Your task to perform on an android device: Open wifi settings Image 0: 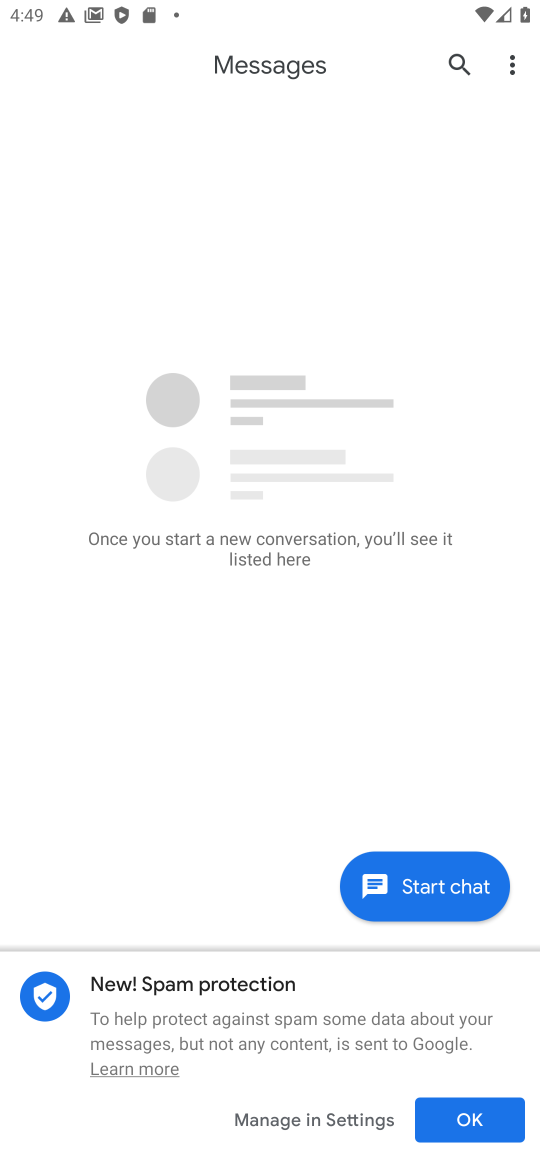
Step 0: press home button
Your task to perform on an android device: Open wifi settings Image 1: 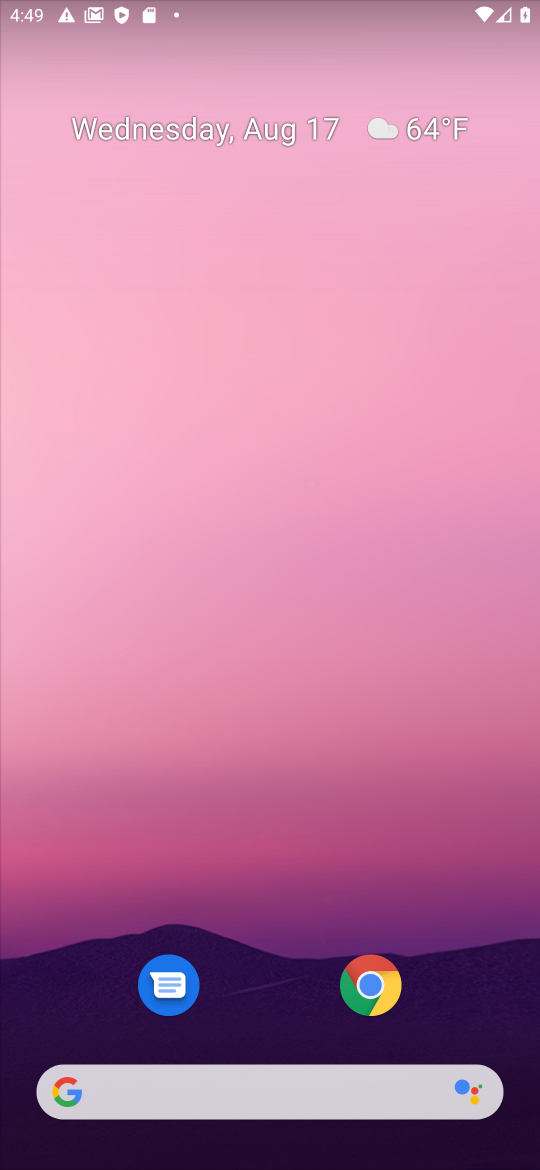
Step 1: drag from (201, 1100) to (263, 91)
Your task to perform on an android device: Open wifi settings Image 2: 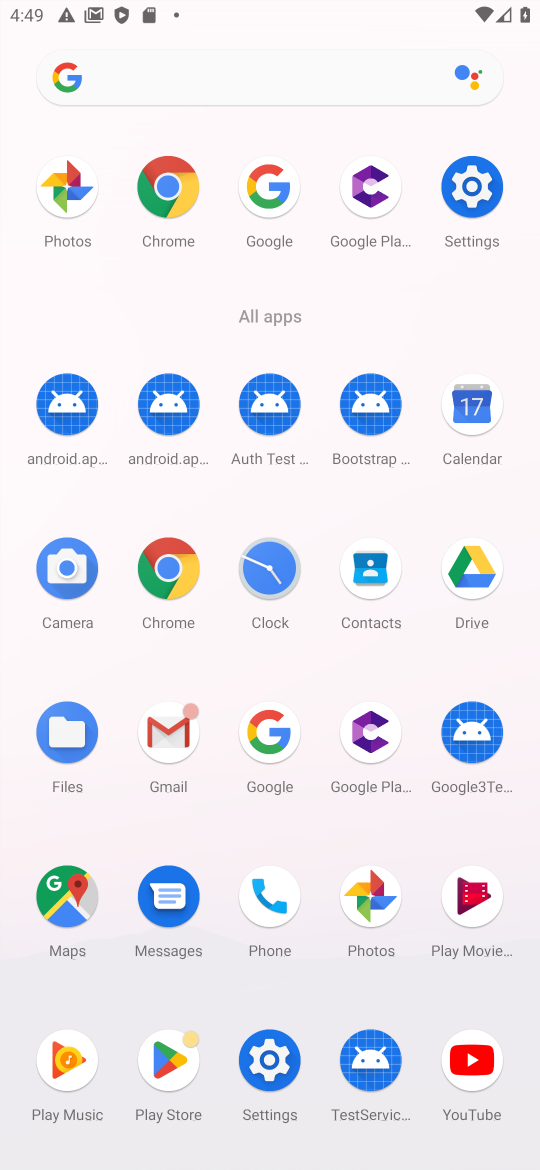
Step 2: click (473, 186)
Your task to perform on an android device: Open wifi settings Image 3: 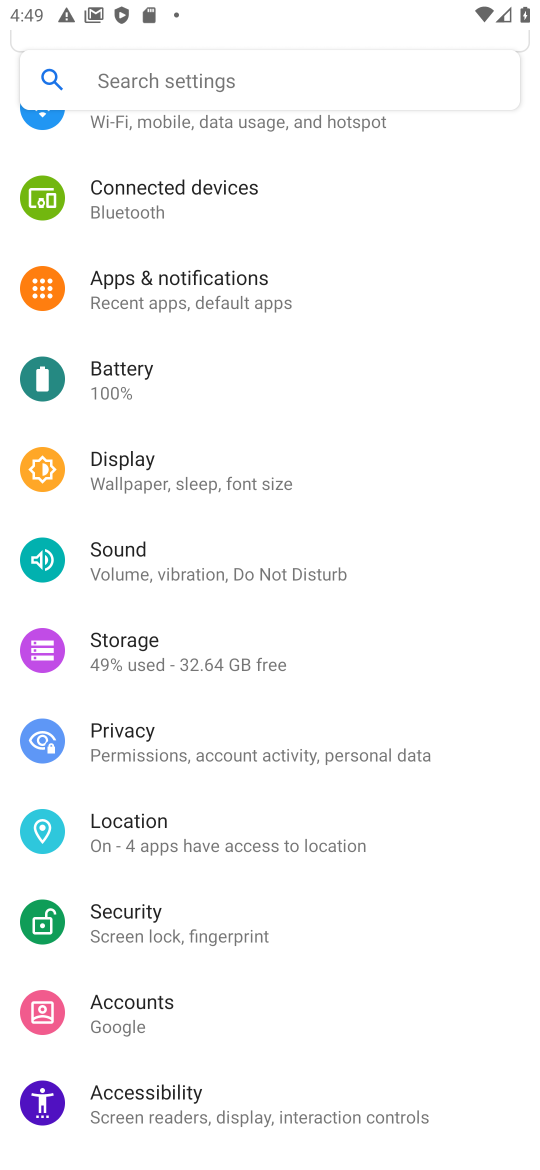
Step 3: drag from (185, 219) to (179, 506)
Your task to perform on an android device: Open wifi settings Image 4: 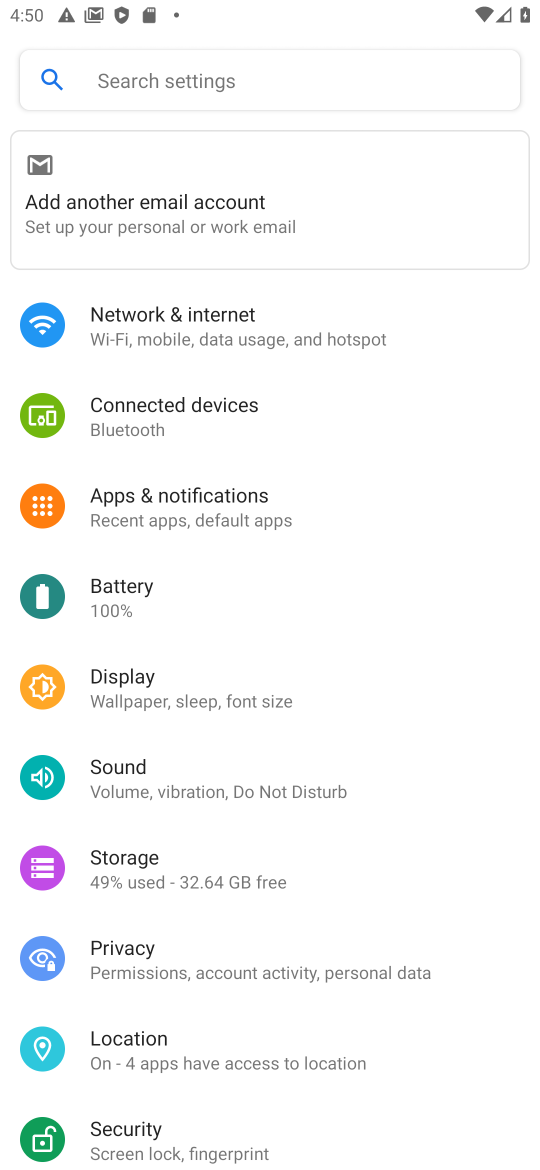
Step 4: click (206, 314)
Your task to perform on an android device: Open wifi settings Image 5: 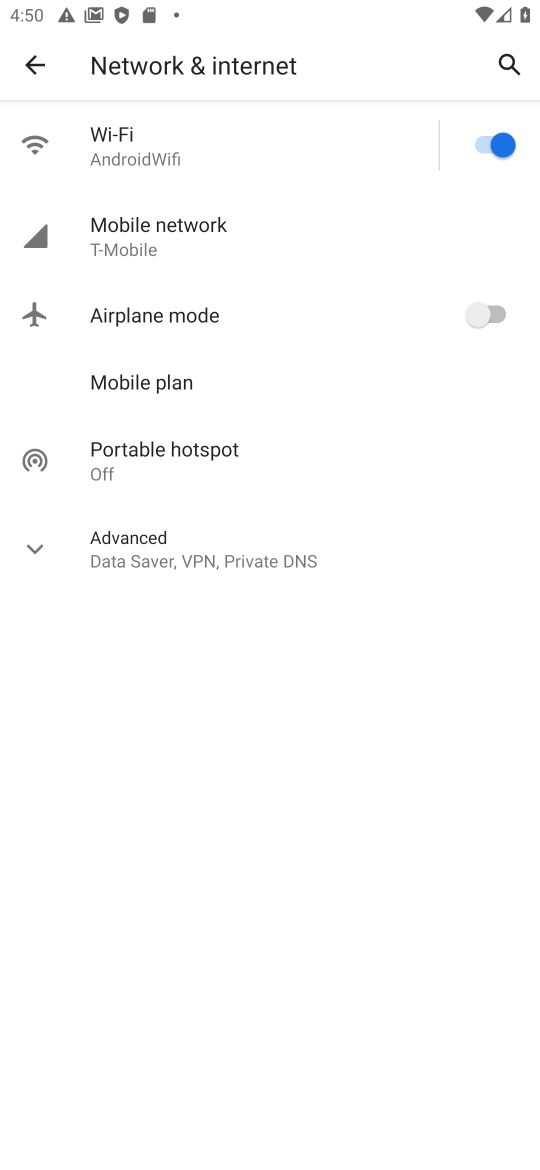
Step 5: click (116, 147)
Your task to perform on an android device: Open wifi settings Image 6: 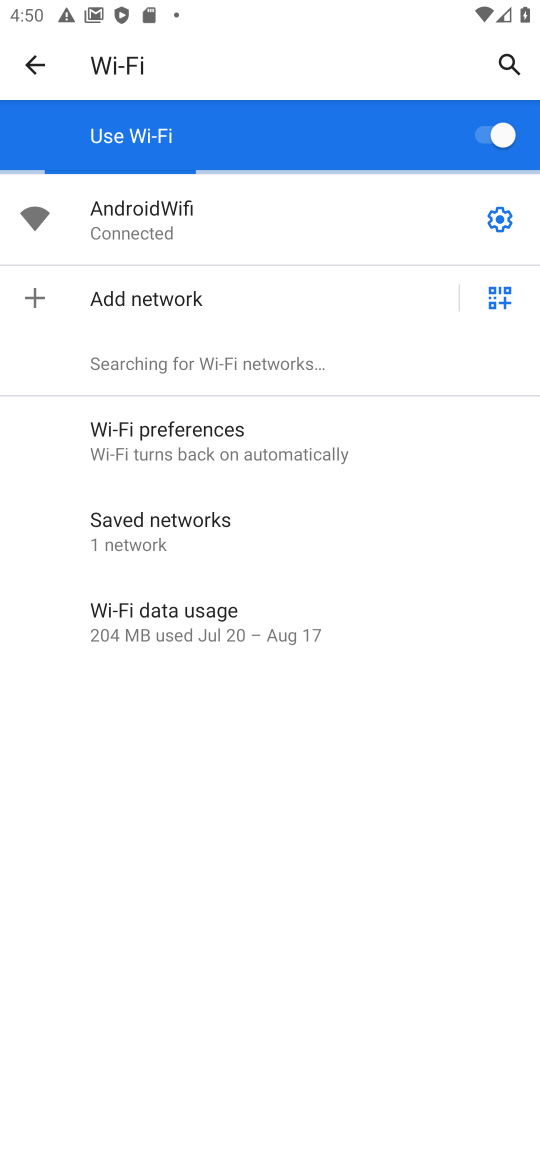
Step 6: click (504, 217)
Your task to perform on an android device: Open wifi settings Image 7: 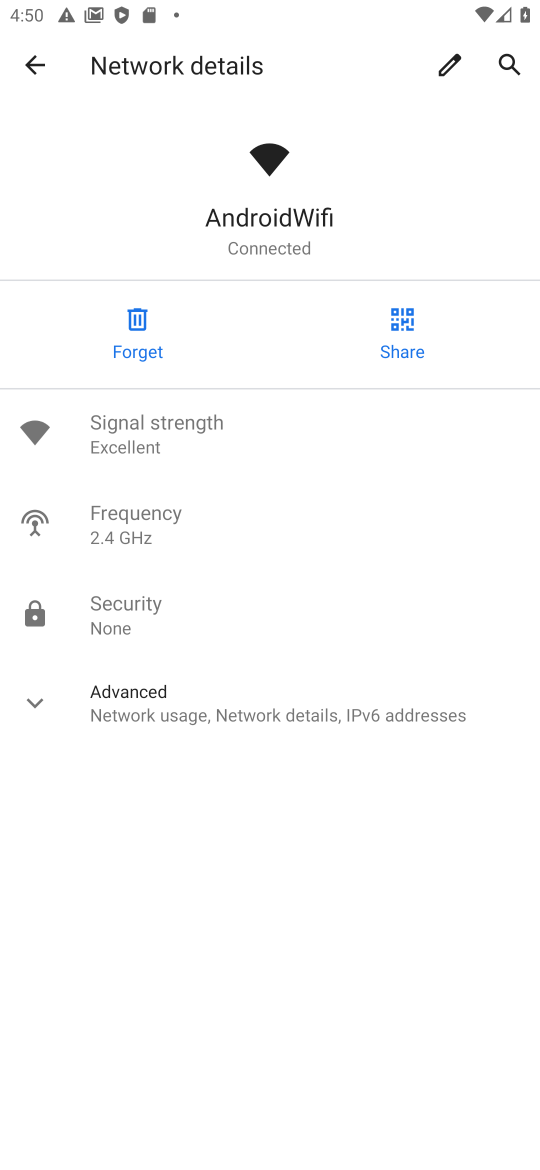
Step 7: task complete